Your task to perform on an android device: See recent photos Image 0: 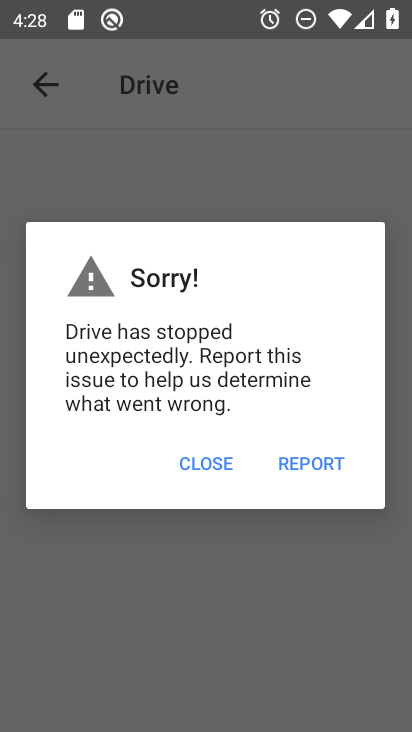
Step 0: press back button
Your task to perform on an android device: See recent photos Image 1: 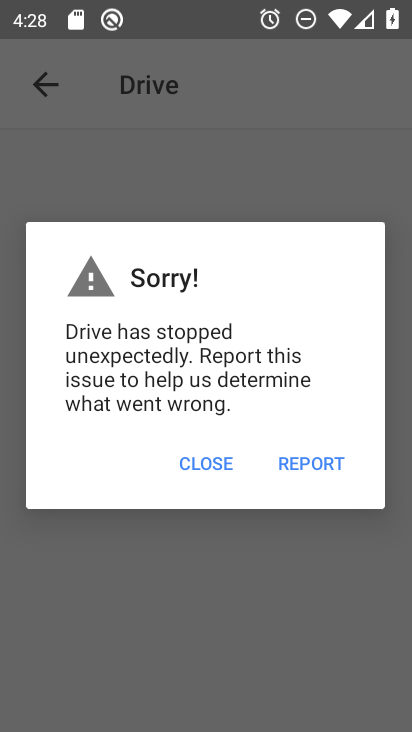
Step 1: press home button
Your task to perform on an android device: See recent photos Image 2: 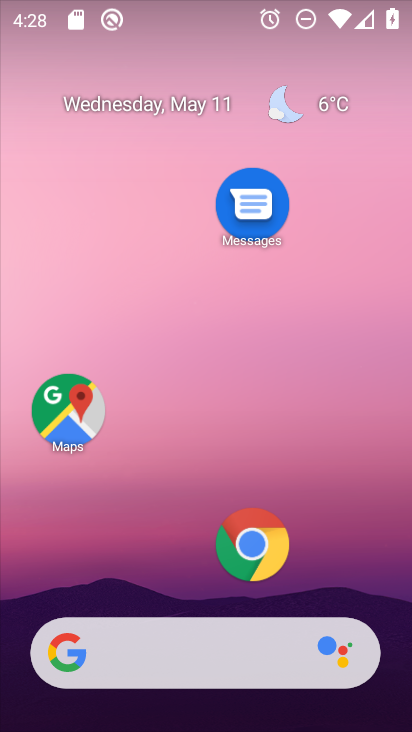
Step 2: drag from (148, 553) to (270, 78)
Your task to perform on an android device: See recent photos Image 3: 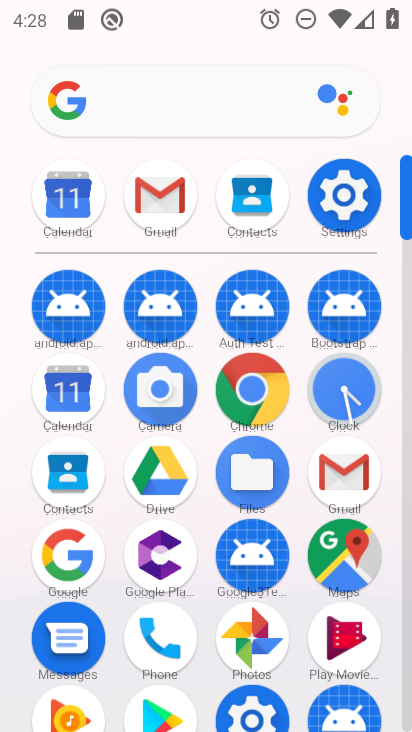
Step 3: click (244, 649)
Your task to perform on an android device: See recent photos Image 4: 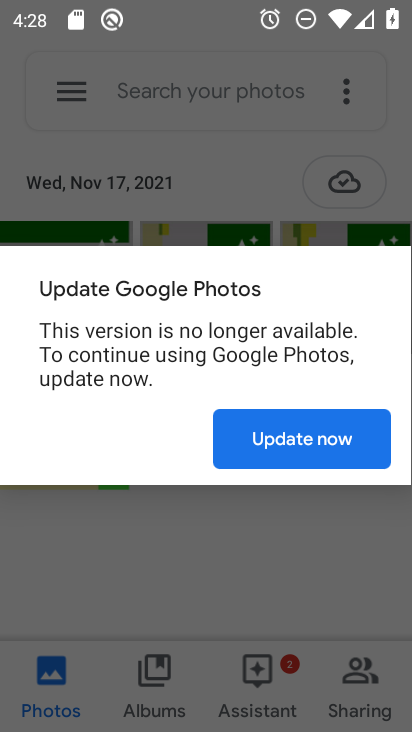
Step 4: click (285, 444)
Your task to perform on an android device: See recent photos Image 5: 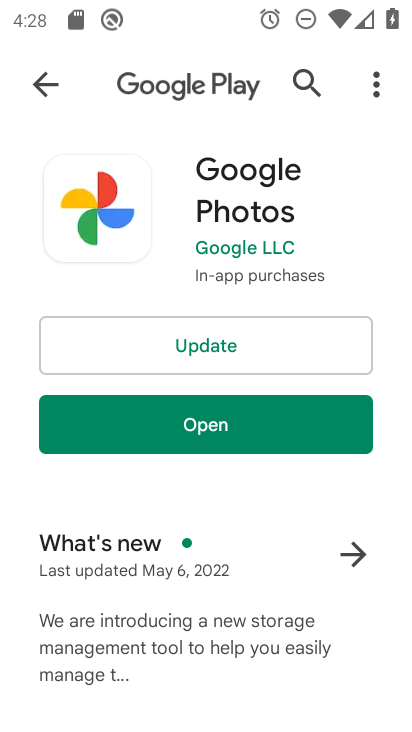
Step 5: click (212, 430)
Your task to perform on an android device: See recent photos Image 6: 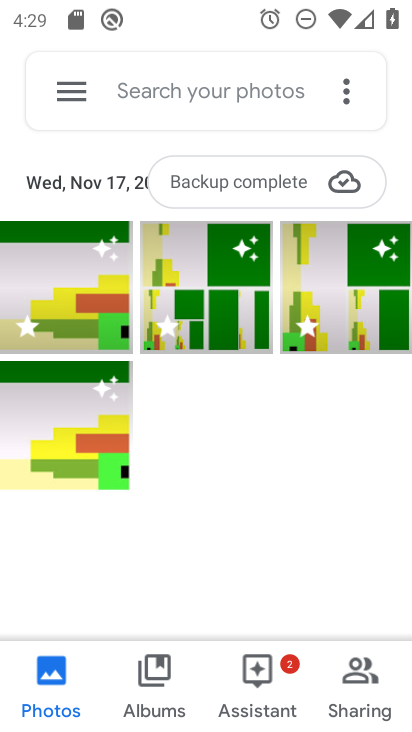
Step 6: click (42, 682)
Your task to perform on an android device: See recent photos Image 7: 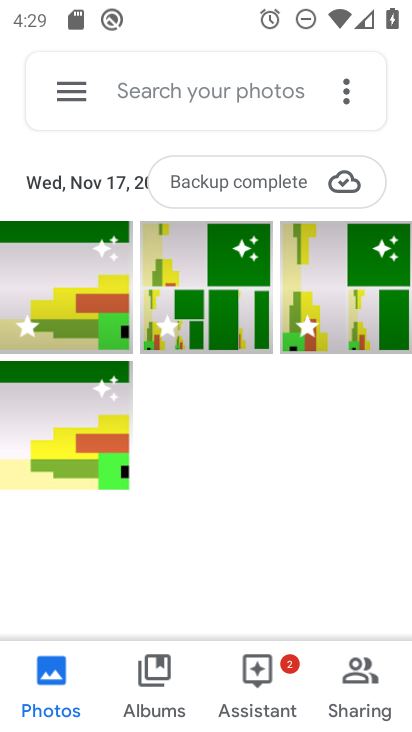
Step 7: task complete